Your task to perform on an android device: set the stopwatch Image 0: 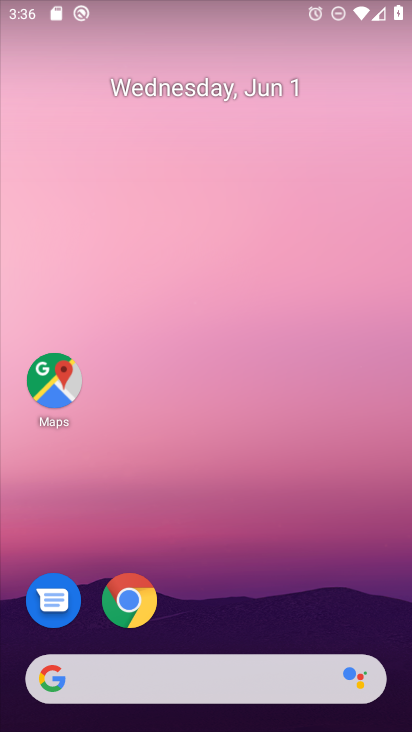
Step 0: drag from (227, 630) to (242, 171)
Your task to perform on an android device: set the stopwatch Image 1: 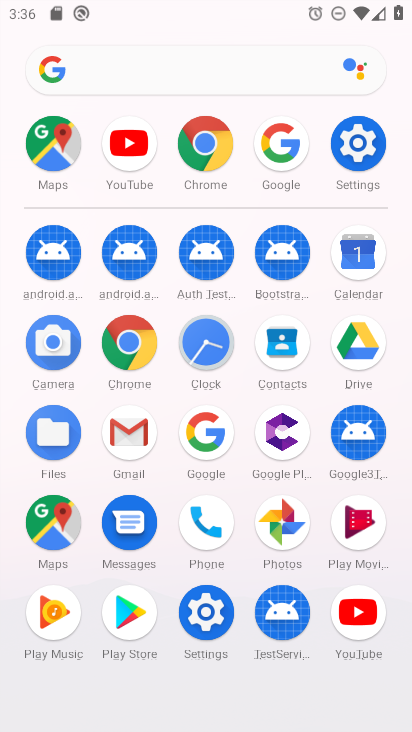
Step 1: click (201, 355)
Your task to perform on an android device: set the stopwatch Image 2: 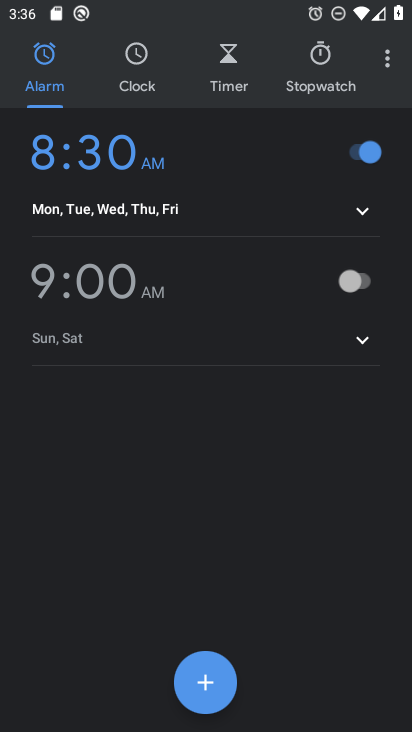
Step 2: click (317, 89)
Your task to perform on an android device: set the stopwatch Image 3: 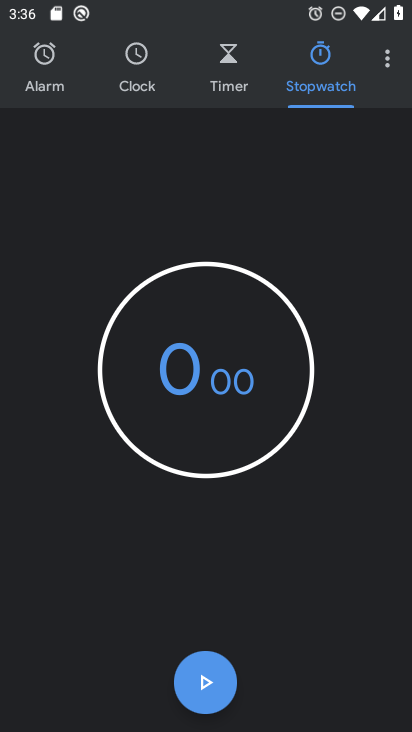
Step 3: click (206, 702)
Your task to perform on an android device: set the stopwatch Image 4: 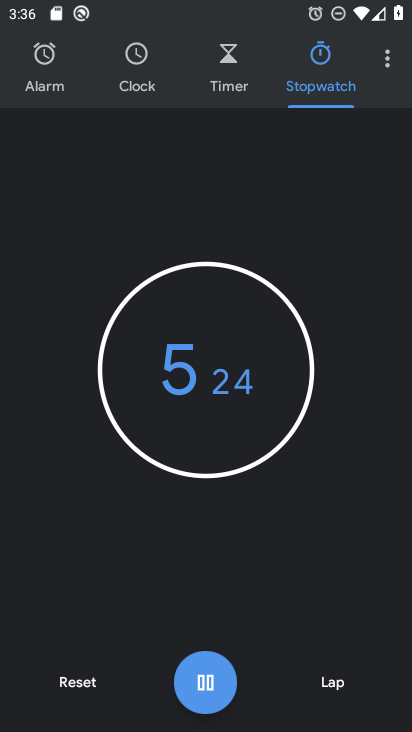
Step 4: click (202, 693)
Your task to perform on an android device: set the stopwatch Image 5: 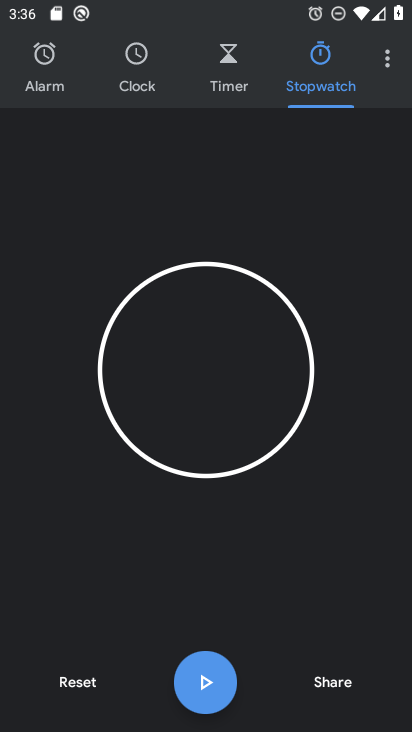
Step 5: task complete